Your task to perform on an android device: uninstall "Messages" Image 0: 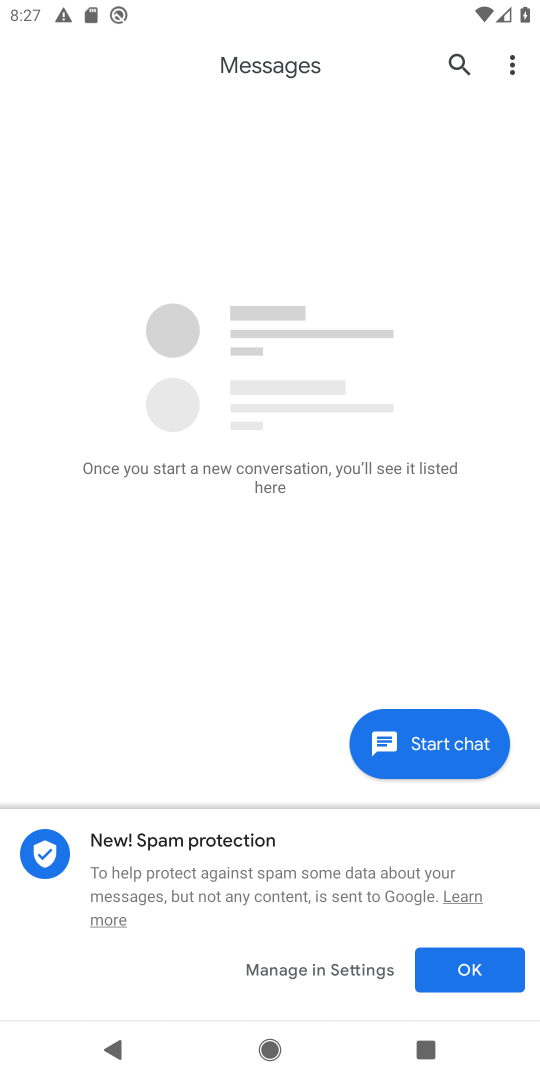
Step 0: press home button
Your task to perform on an android device: uninstall "Messages" Image 1: 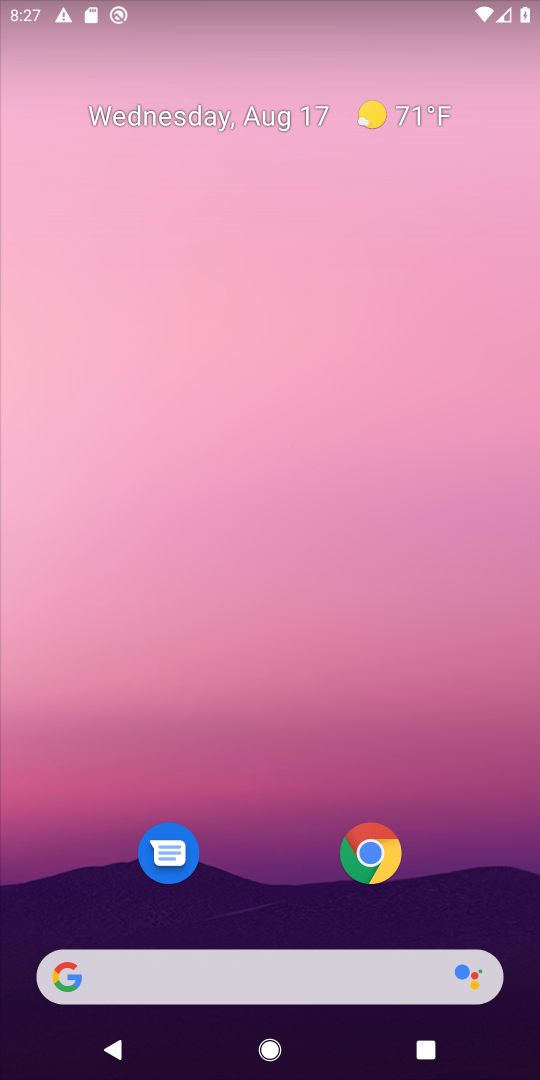
Step 1: drag from (276, 732) to (326, 180)
Your task to perform on an android device: uninstall "Messages" Image 2: 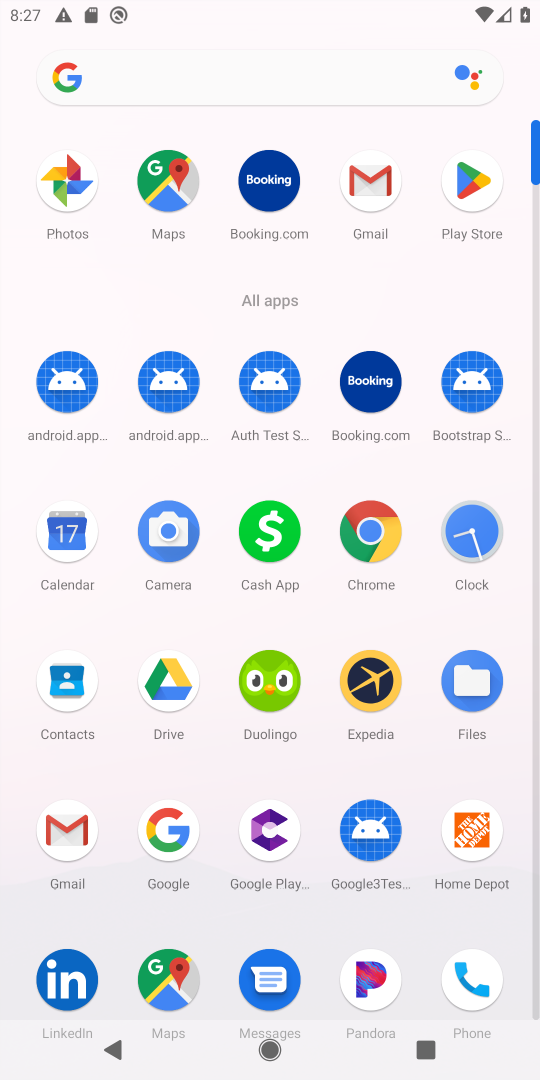
Step 2: click (467, 165)
Your task to perform on an android device: uninstall "Messages" Image 3: 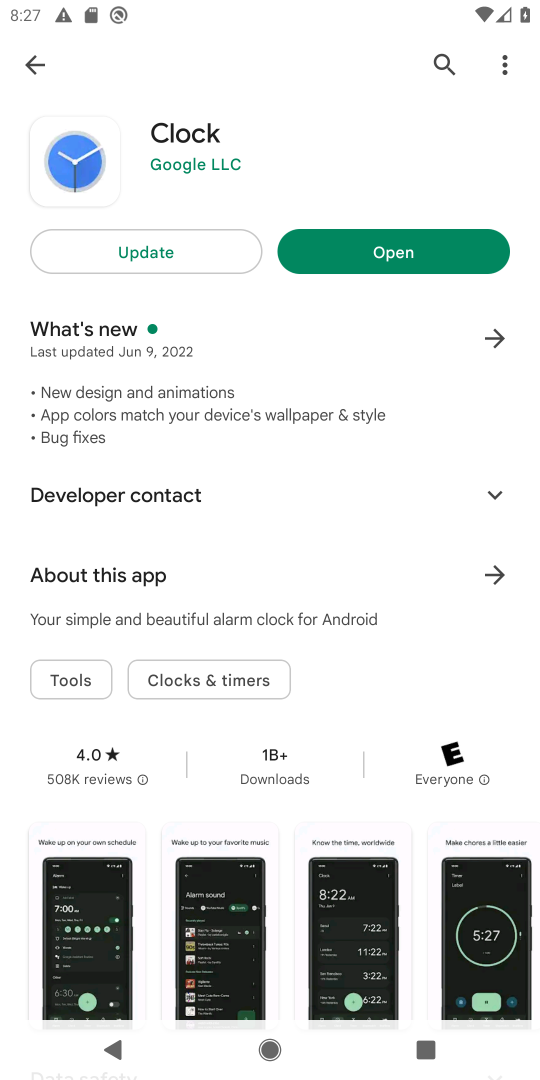
Step 3: click (442, 57)
Your task to perform on an android device: uninstall "Messages" Image 4: 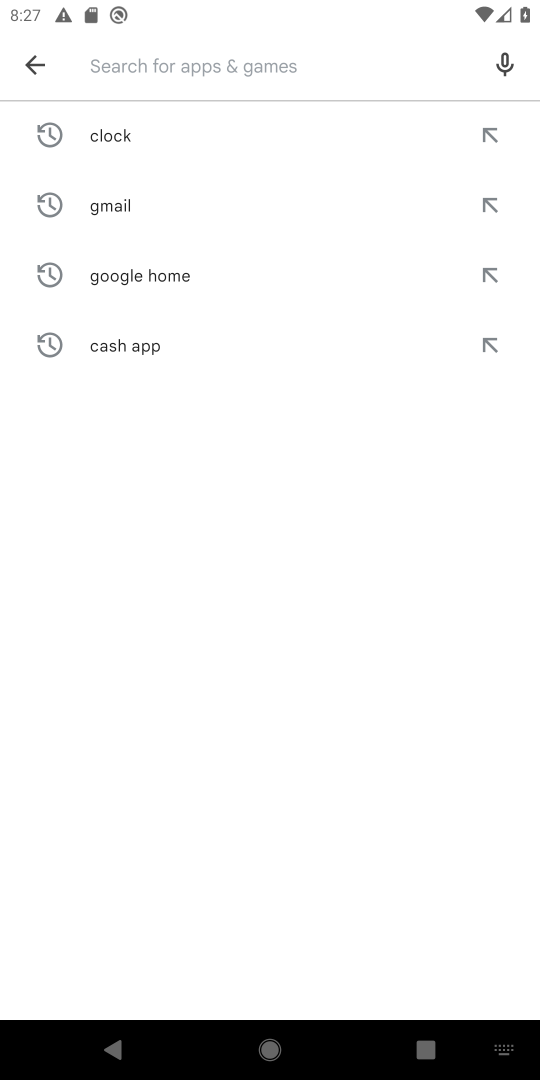
Step 4: type "Messages"
Your task to perform on an android device: uninstall "Messages" Image 5: 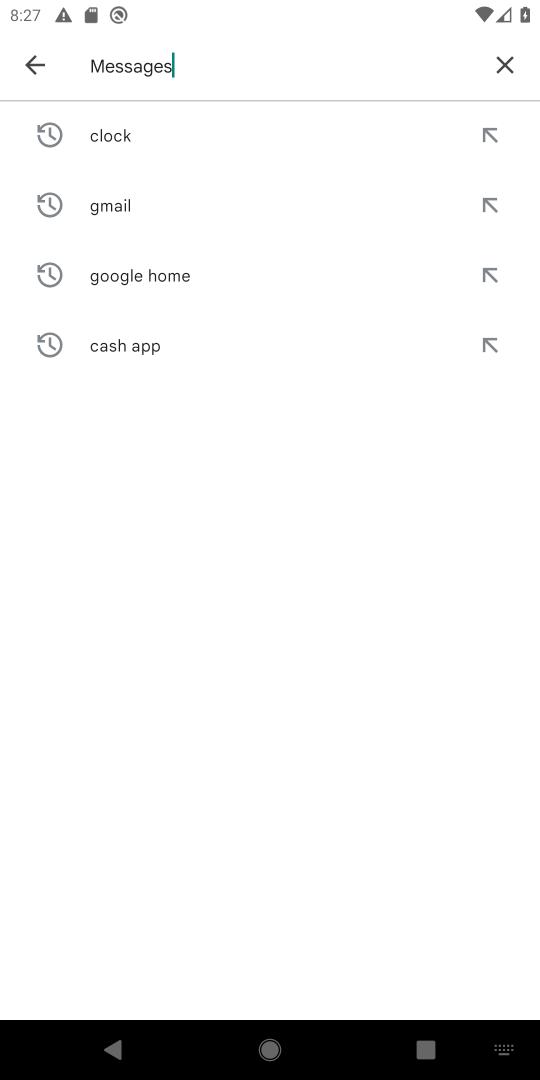
Step 5: type ""
Your task to perform on an android device: uninstall "Messages" Image 6: 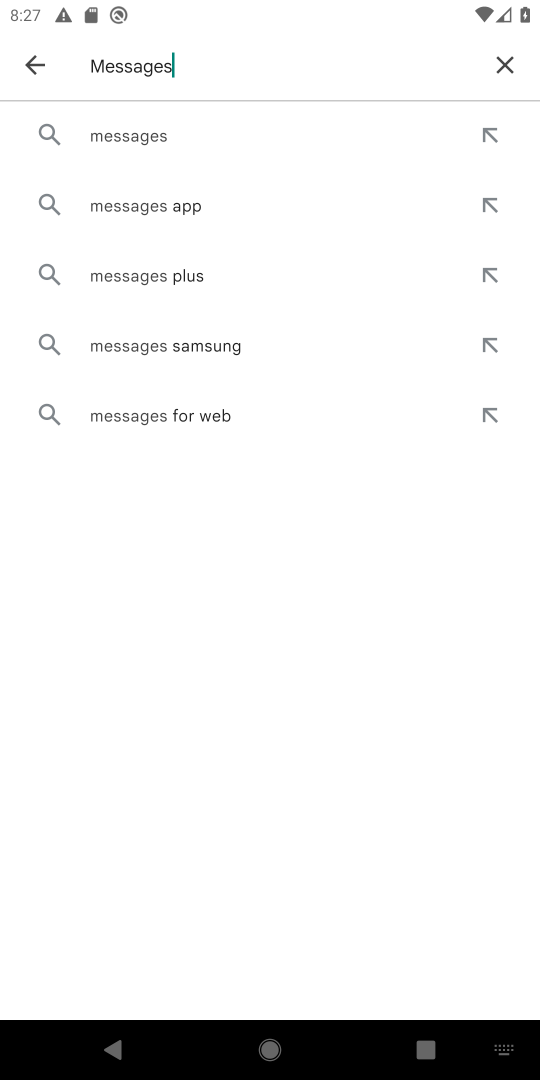
Step 6: click (119, 138)
Your task to perform on an android device: uninstall "Messages" Image 7: 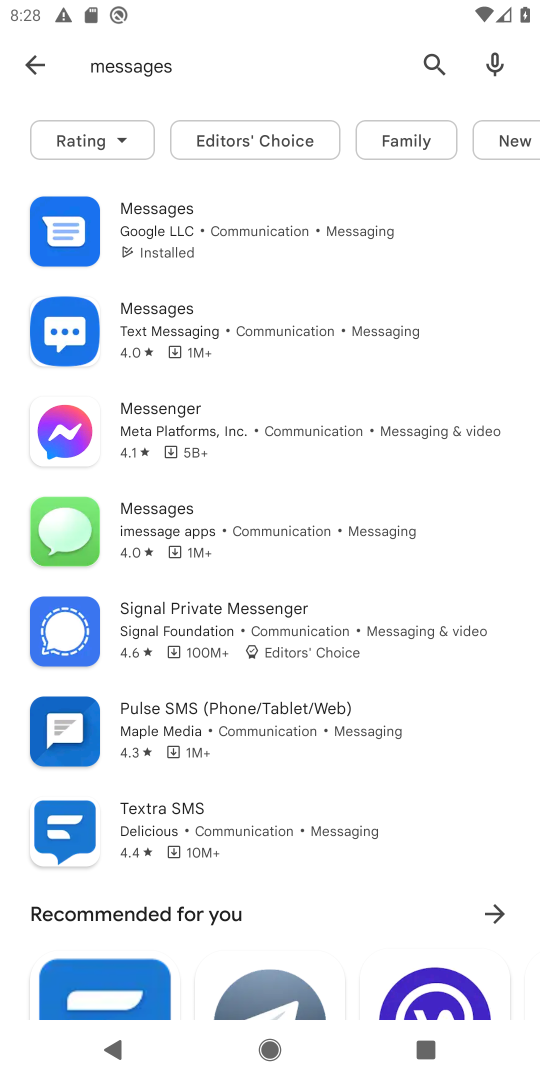
Step 7: click (234, 209)
Your task to perform on an android device: uninstall "Messages" Image 8: 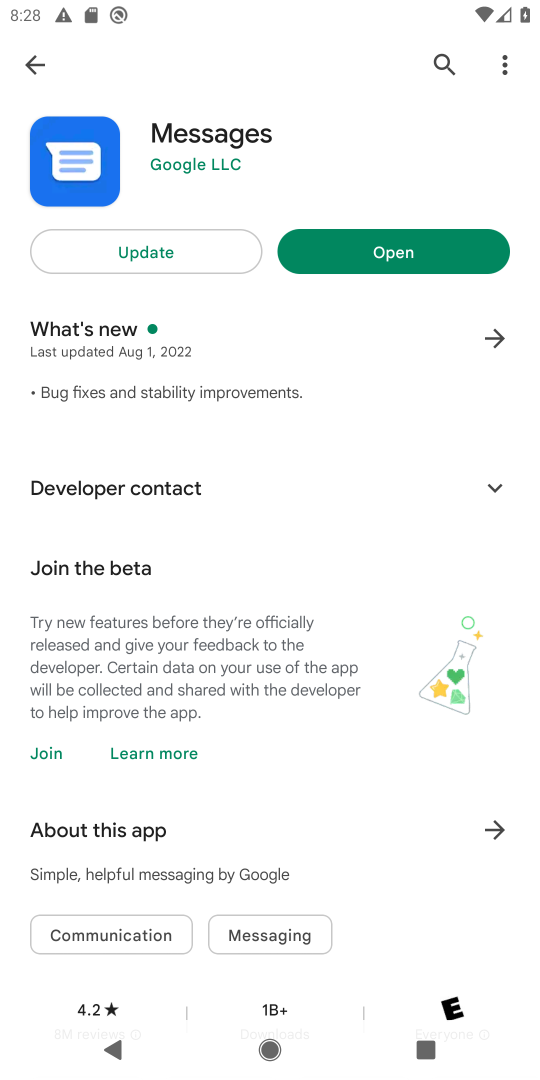
Step 8: click (179, 237)
Your task to perform on an android device: uninstall "Messages" Image 9: 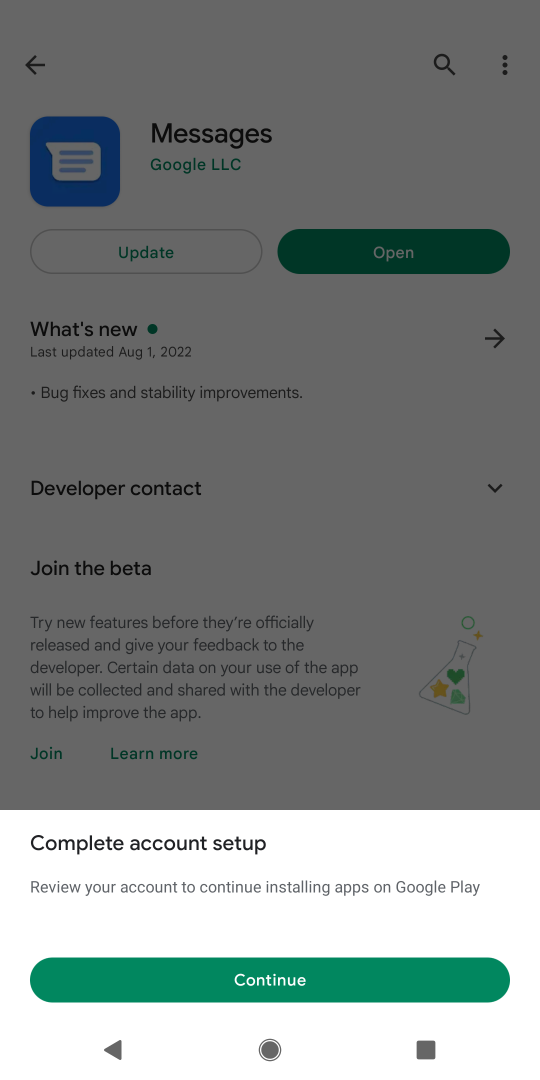
Step 9: click (309, 992)
Your task to perform on an android device: uninstall "Messages" Image 10: 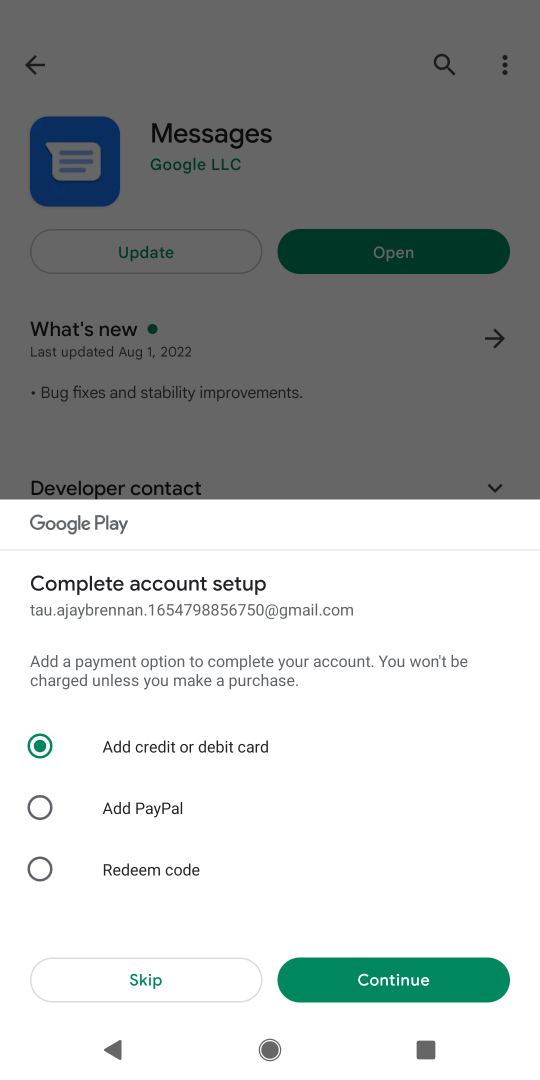
Step 10: click (132, 975)
Your task to perform on an android device: uninstall "Messages" Image 11: 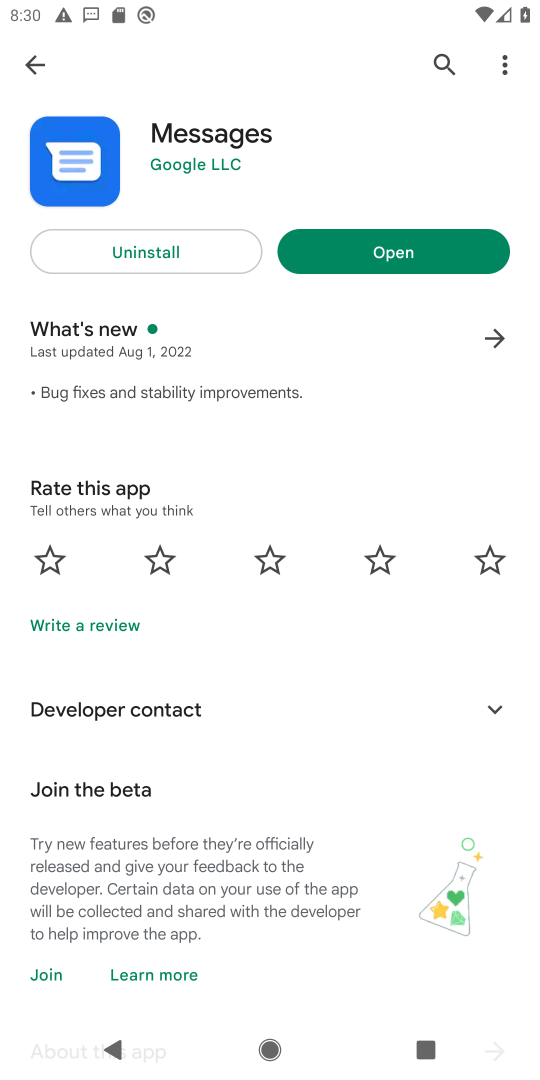
Step 11: click (204, 242)
Your task to perform on an android device: uninstall "Messages" Image 12: 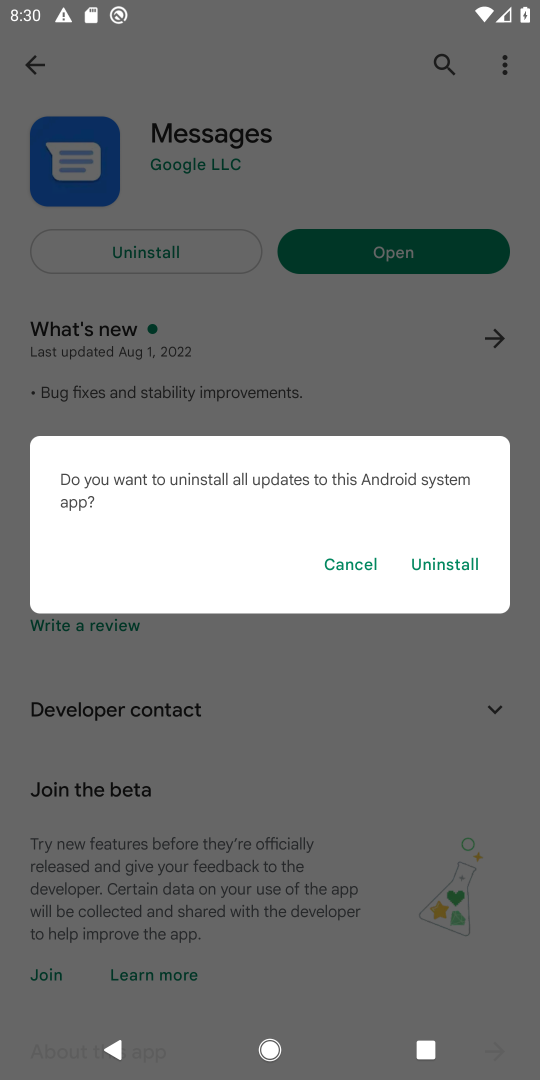
Step 12: click (444, 555)
Your task to perform on an android device: uninstall "Messages" Image 13: 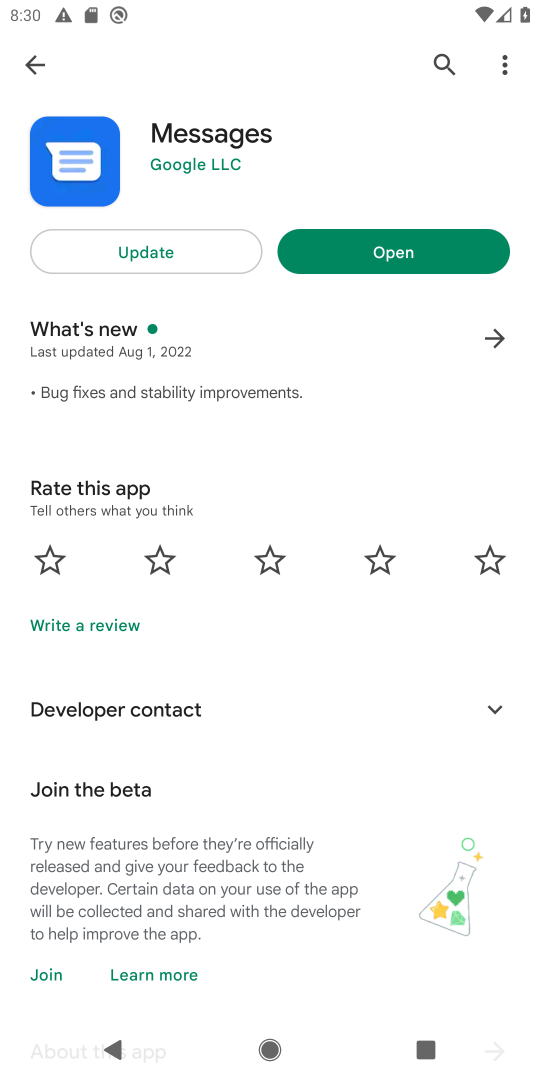
Step 13: task complete